Your task to perform on an android device: Search for Italian restaurants on Maps Image 0: 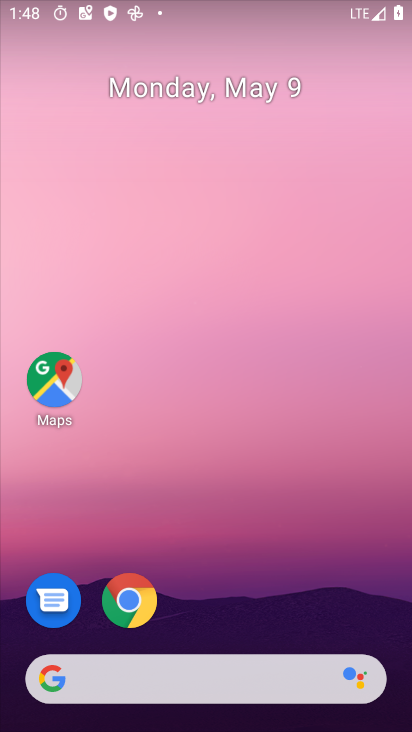
Step 0: drag from (236, 632) to (298, 257)
Your task to perform on an android device: Search for Italian restaurants on Maps Image 1: 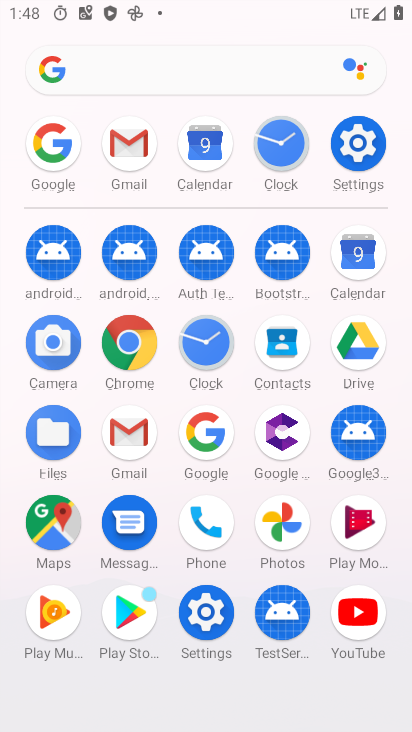
Step 1: click (44, 538)
Your task to perform on an android device: Search for Italian restaurants on Maps Image 2: 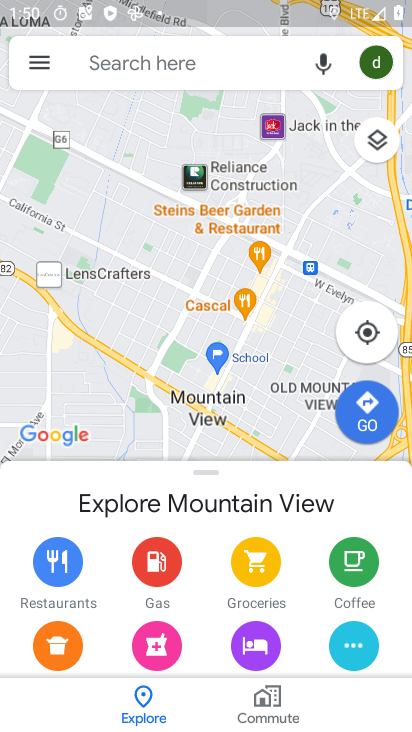
Step 2: click (243, 61)
Your task to perform on an android device: Search for Italian restaurants on Maps Image 3: 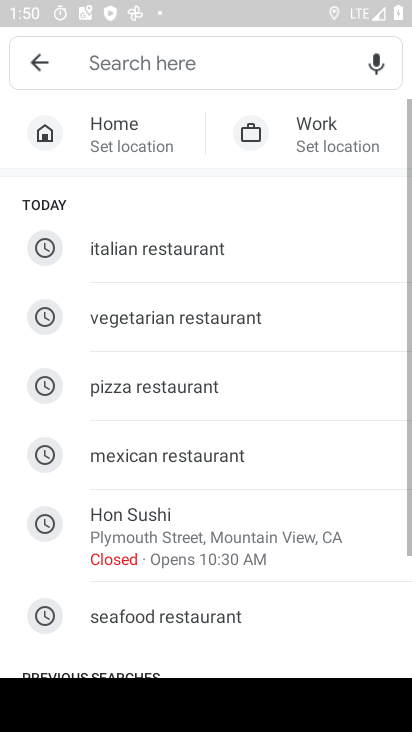
Step 3: click (193, 270)
Your task to perform on an android device: Search for Italian restaurants on Maps Image 4: 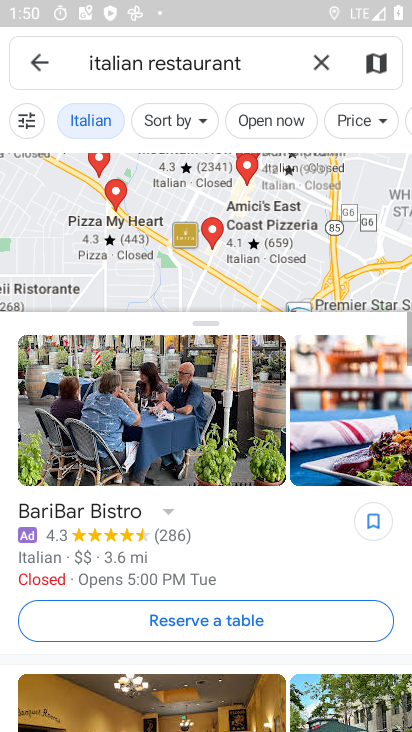
Step 4: task complete